Your task to perform on an android device: change the clock style Image 0: 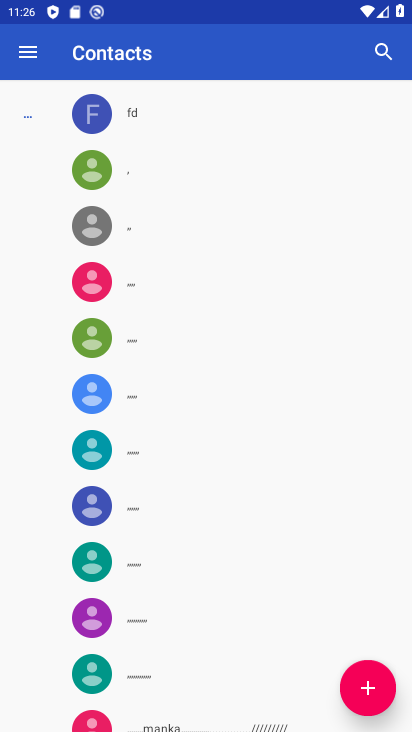
Step 0: press home button
Your task to perform on an android device: change the clock style Image 1: 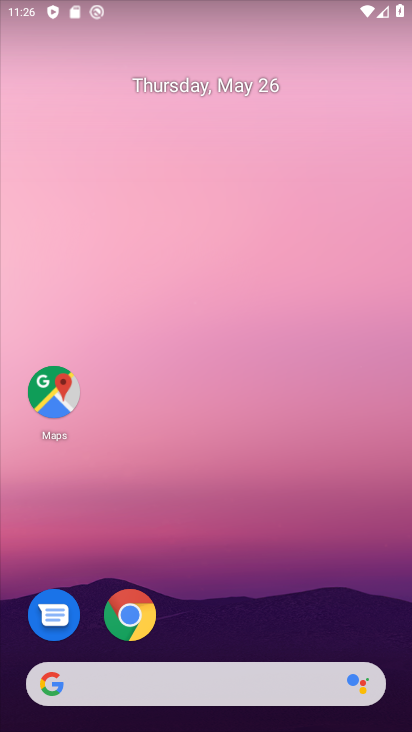
Step 1: drag from (220, 641) to (183, 120)
Your task to perform on an android device: change the clock style Image 2: 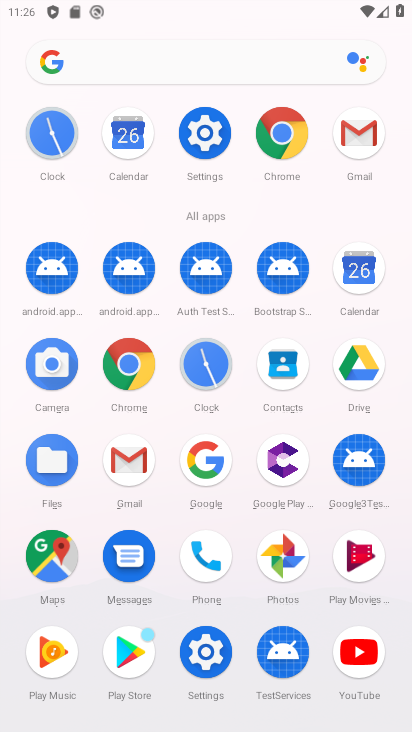
Step 2: click (70, 134)
Your task to perform on an android device: change the clock style Image 3: 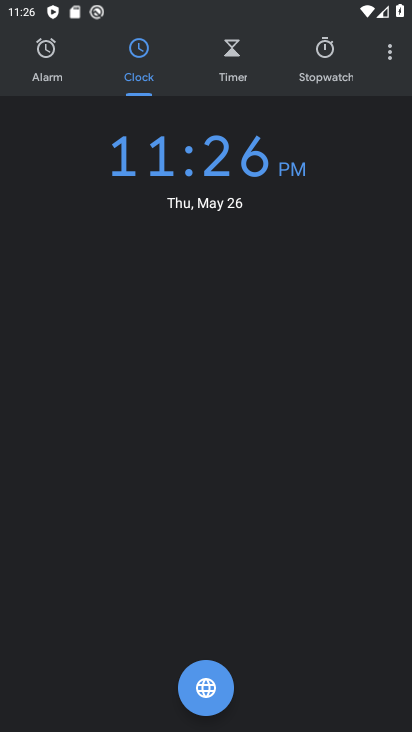
Step 3: click (391, 66)
Your task to perform on an android device: change the clock style Image 4: 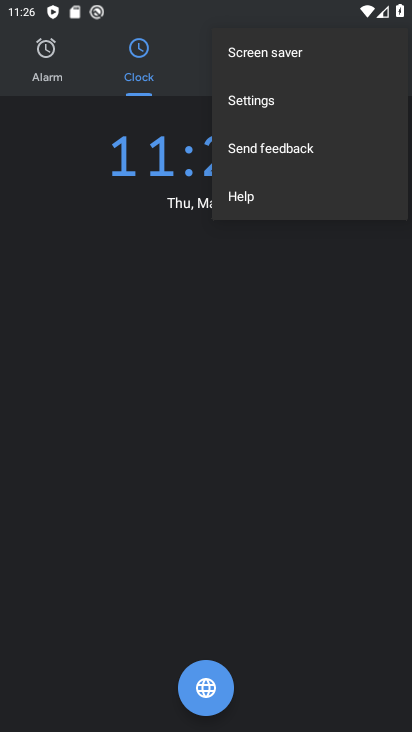
Step 4: click (334, 99)
Your task to perform on an android device: change the clock style Image 5: 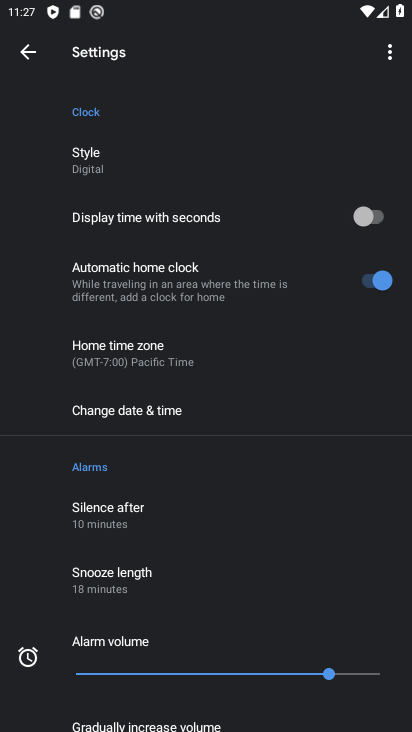
Step 5: click (118, 157)
Your task to perform on an android device: change the clock style Image 6: 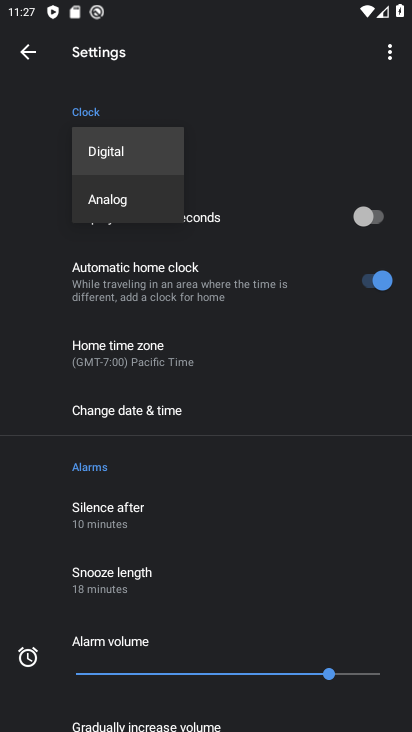
Step 6: click (127, 202)
Your task to perform on an android device: change the clock style Image 7: 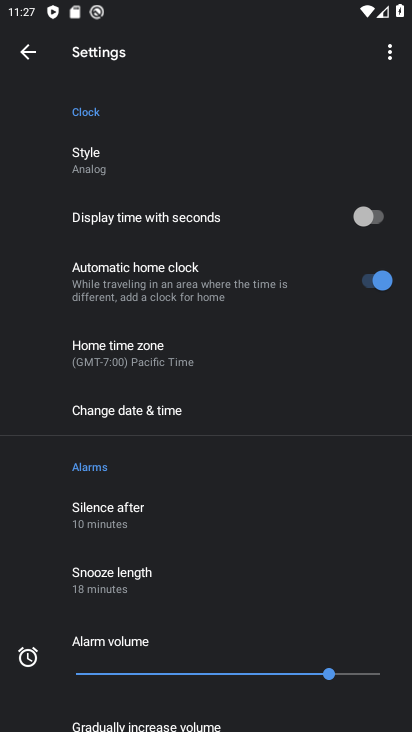
Step 7: task complete